Your task to perform on an android device: choose inbox layout in the gmail app Image 0: 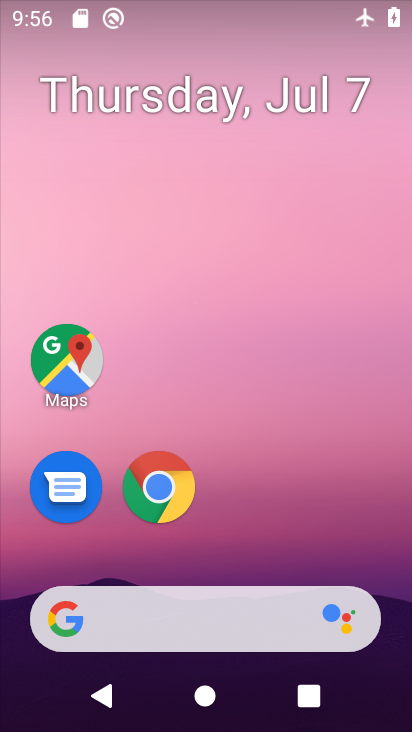
Step 0: drag from (361, 536) to (356, 73)
Your task to perform on an android device: choose inbox layout in the gmail app Image 1: 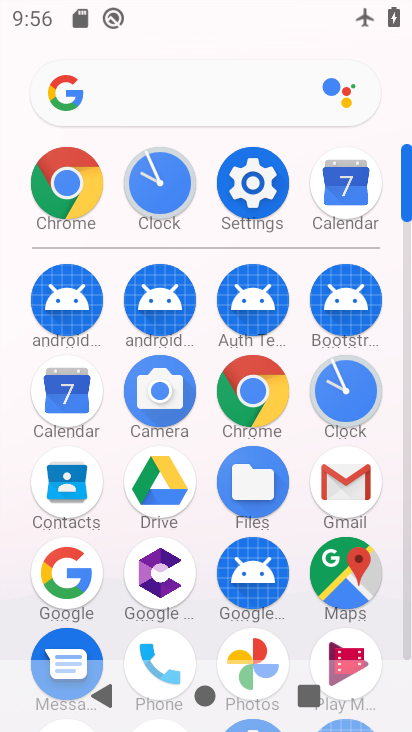
Step 1: click (351, 475)
Your task to perform on an android device: choose inbox layout in the gmail app Image 2: 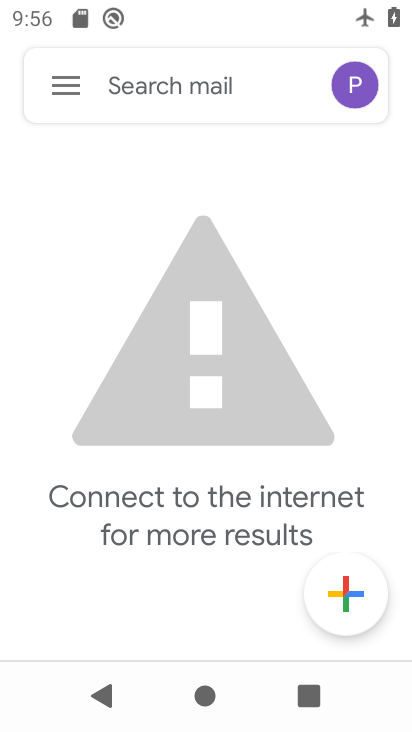
Step 2: click (68, 87)
Your task to perform on an android device: choose inbox layout in the gmail app Image 3: 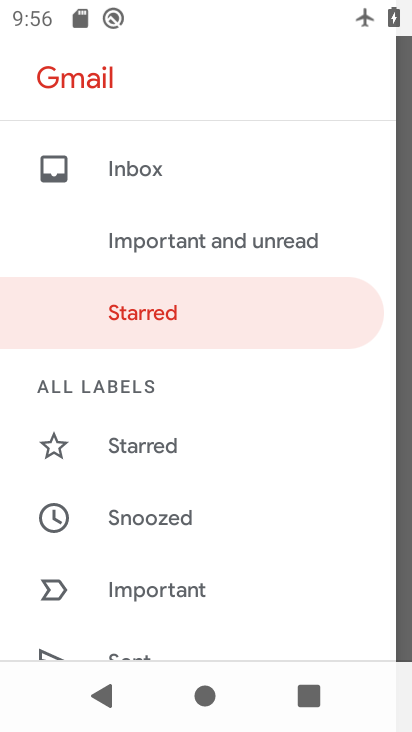
Step 3: drag from (306, 459) to (309, 373)
Your task to perform on an android device: choose inbox layout in the gmail app Image 4: 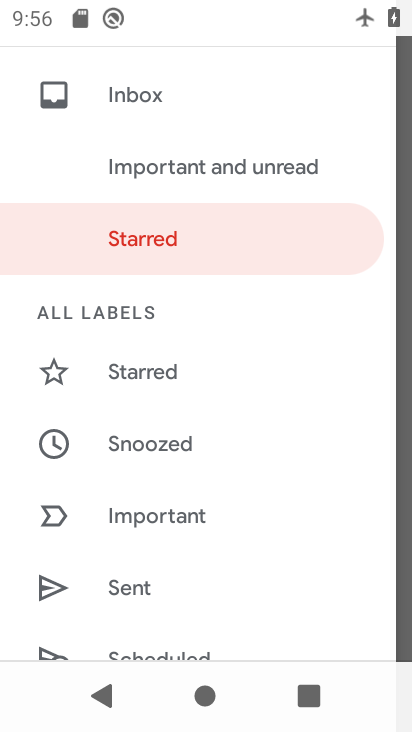
Step 4: drag from (303, 481) to (309, 381)
Your task to perform on an android device: choose inbox layout in the gmail app Image 5: 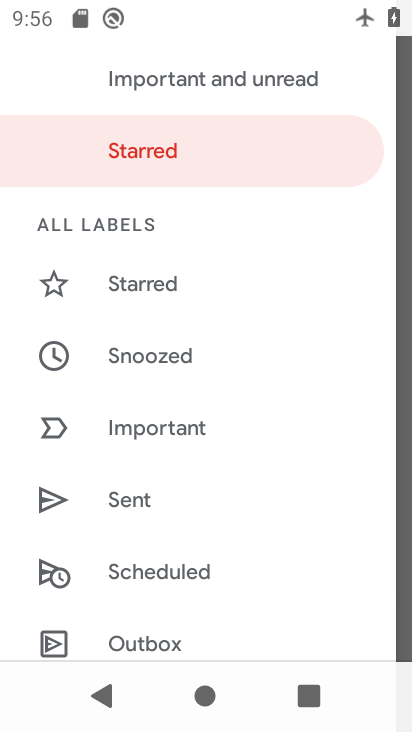
Step 5: drag from (305, 488) to (309, 365)
Your task to perform on an android device: choose inbox layout in the gmail app Image 6: 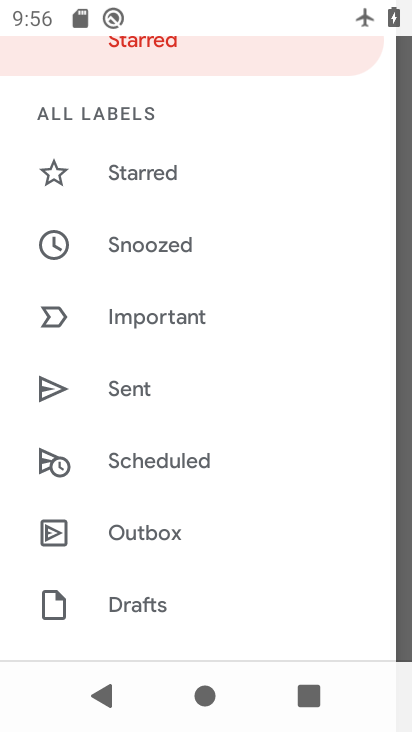
Step 6: drag from (318, 502) to (321, 364)
Your task to perform on an android device: choose inbox layout in the gmail app Image 7: 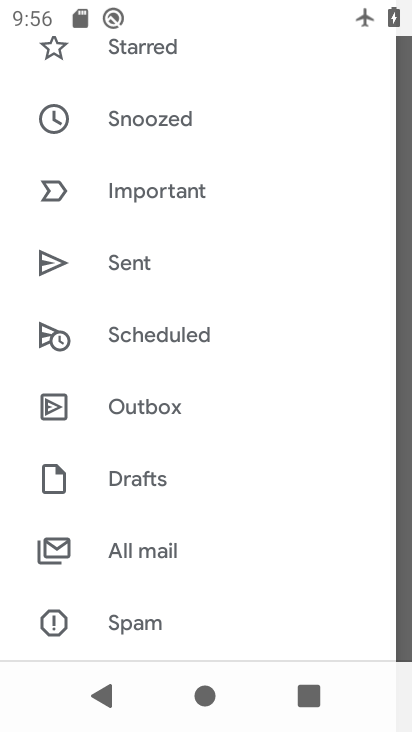
Step 7: drag from (321, 514) to (325, 388)
Your task to perform on an android device: choose inbox layout in the gmail app Image 8: 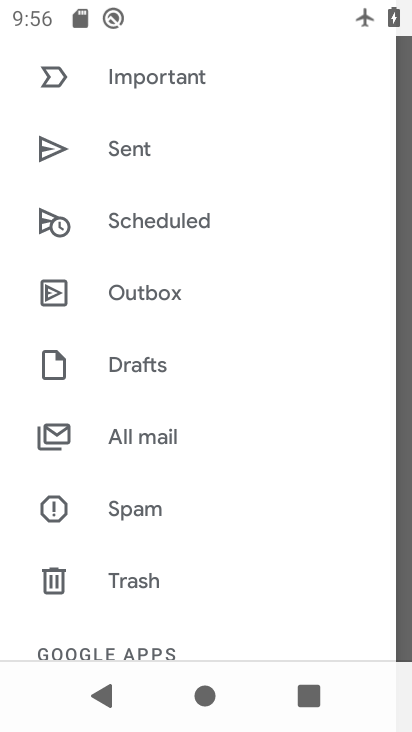
Step 8: drag from (283, 467) to (287, 363)
Your task to perform on an android device: choose inbox layout in the gmail app Image 9: 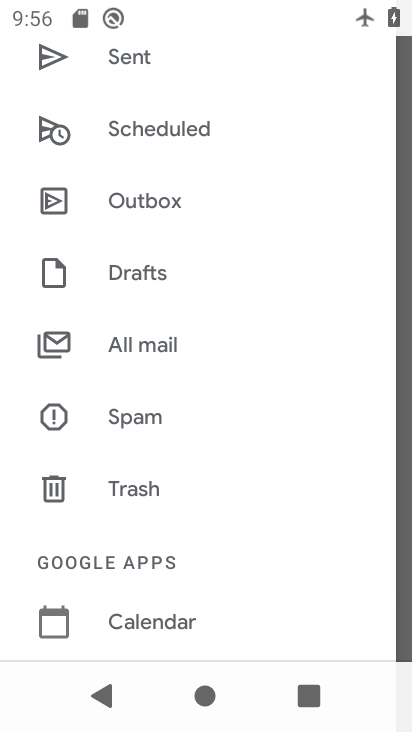
Step 9: drag from (295, 456) to (298, 358)
Your task to perform on an android device: choose inbox layout in the gmail app Image 10: 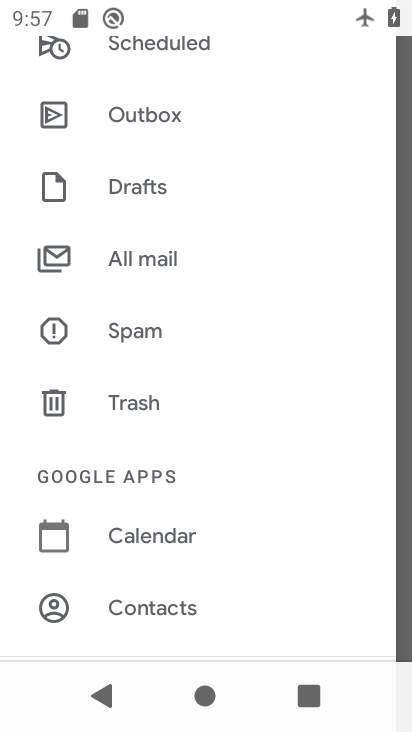
Step 10: drag from (310, 186) to (322, 392)
Your task to perform on an android device: choose inbox layout in the gmail app Image 11: 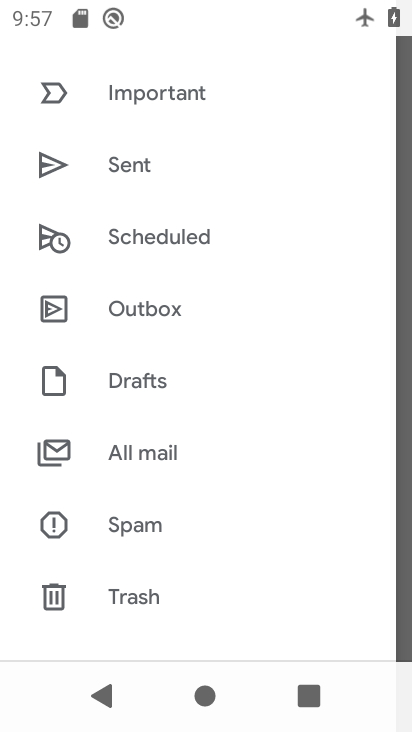
Step 11: drag from (321, 258) to (331, 404)
Your task to perform on an android device: choose inbox layout in the gmail app Image 12: 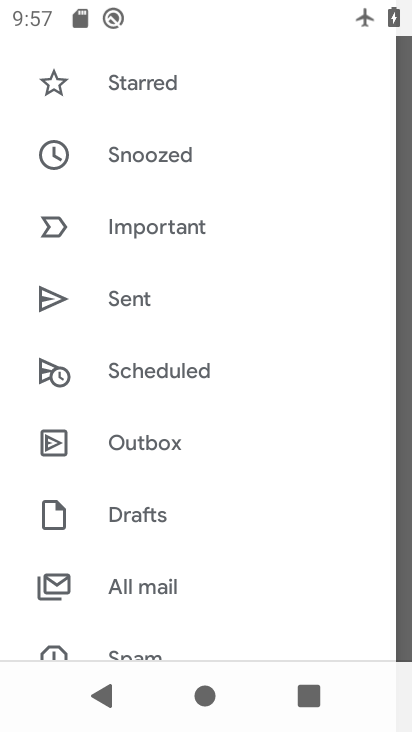
Step 12: drag from (332, 248) to (338, 380)
Your task to perform on an android device: choose inbox layout in the gmail app Image 13: 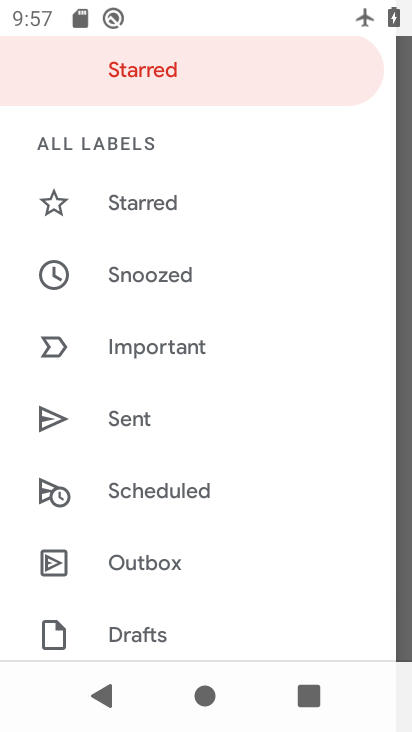
Step 13: drag from (330, 250) to (338, 417)
Your task to perform on an android device: choose inbox layout in the gmail app Image 14: 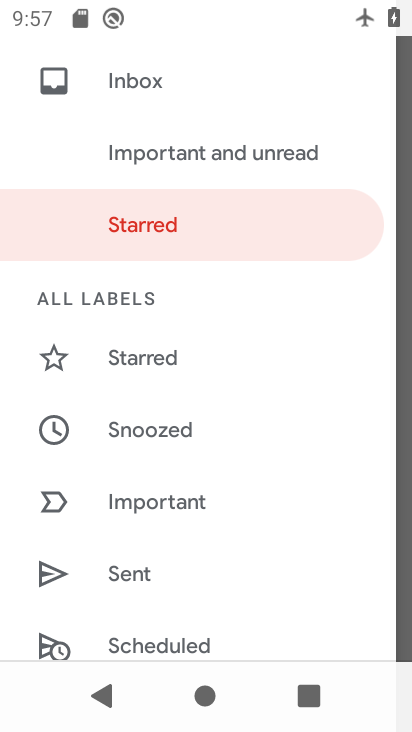
Step 14: drag from (354, 159) to (348, 359)
Your task to perform on an android device: choose inbox layout in the gmail app Image 15: 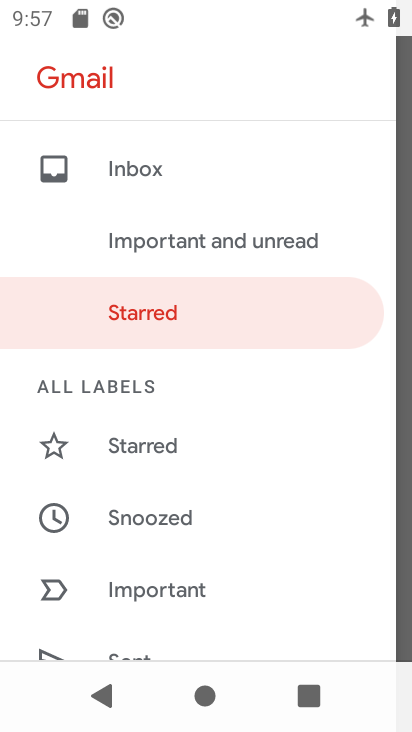
Step 15: drag from (279, 407) to (280, 247)
Your task to perform on an android device: choose inbox layout in the gmail app Image 16: 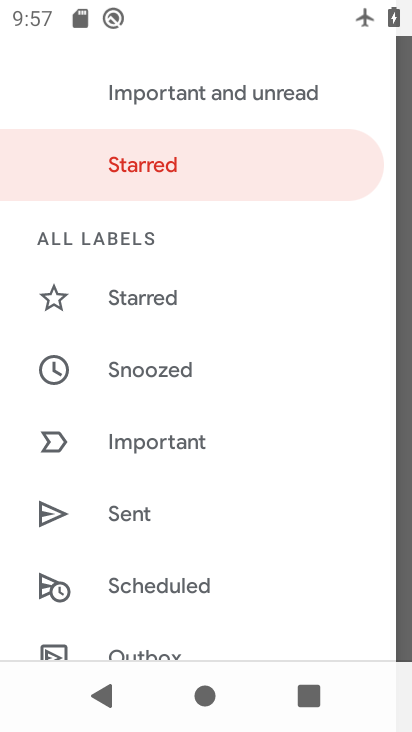
Step 16: drag from (289, 452) to (286, 276)
Your task to perform on an android device: choose inbox layout in the gmail app Image 17: 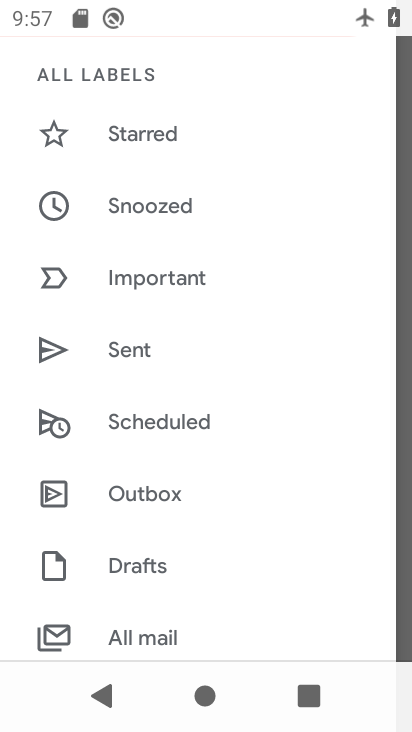
Step 17: drag from (315, 485) to (328, 224)
Your task to perform on an android device: choose inbox layout in the gmail app Image 18: 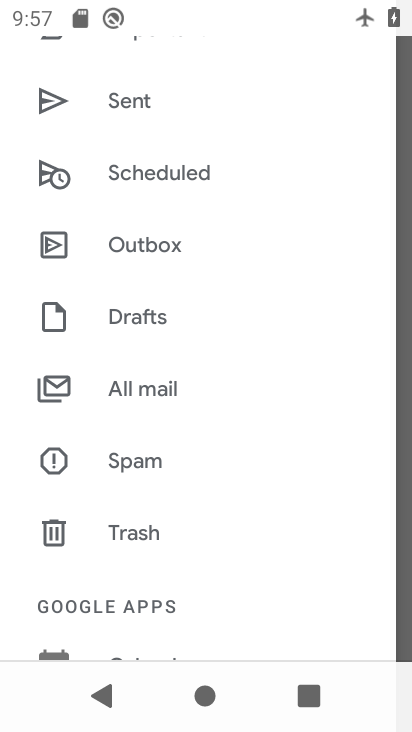
Step 18: drag from (320, 515) to (323, 203)
Your task to perform on an android device: choose inbox layout in the gmail app Image 19: 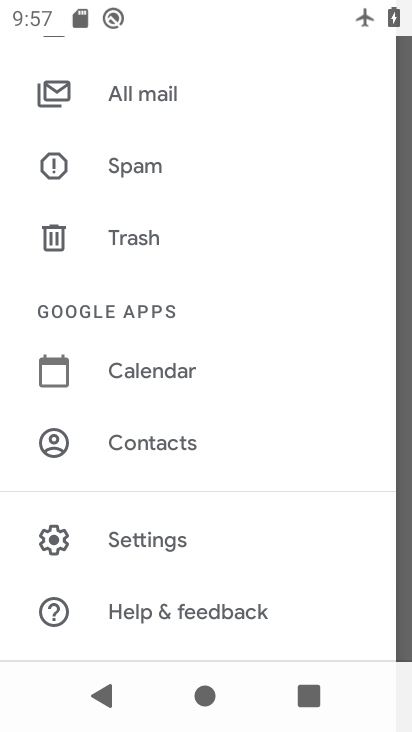
Step 19: click (273, 535)
Your task to perform on an android device: choose inbox layout in the gmail app Image 20: 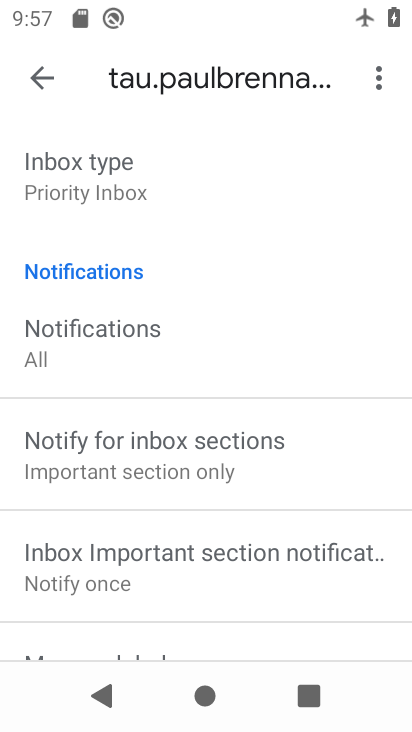
Step 20: drag from (301, 223) to (303, 504)
Your task to perform on an android device: choose inbox layout in the gmail app Image 21: 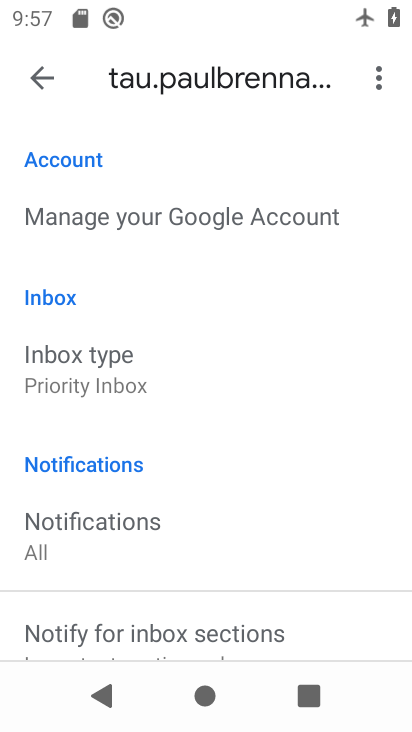
Step 21: drag from (265, 186) to (265, 451)
Your task to perform on an android device: choose inbox layout in the gmail app Image 22: 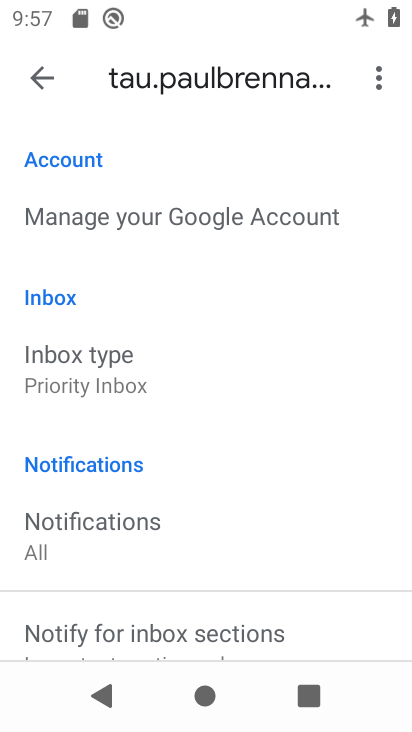
Step 22: click (124, 368)
Your task to perform on an android device: choose inbox layout in the gmail app Image 23: 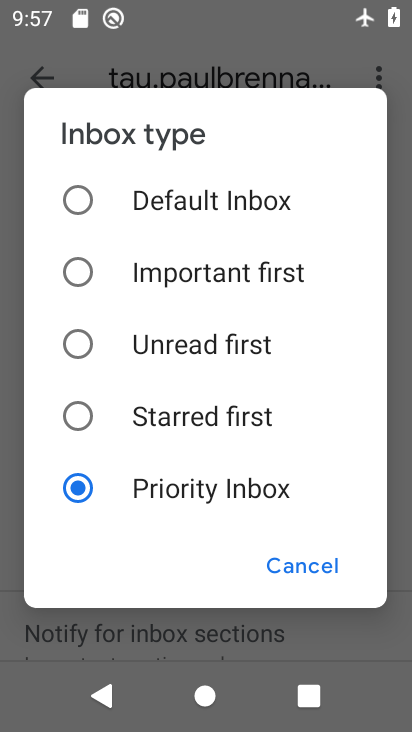
Step 23: click (174, 267)
Your task to perform on an android device: choose inbox layout in the gmail app Image 24: 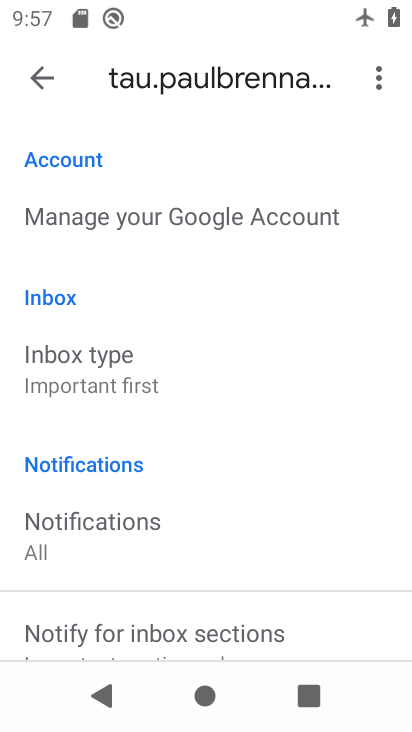
Step 24: task complete